Your task to perform on an android device: open app "Upside-Cash back on gas & food" Image 0: 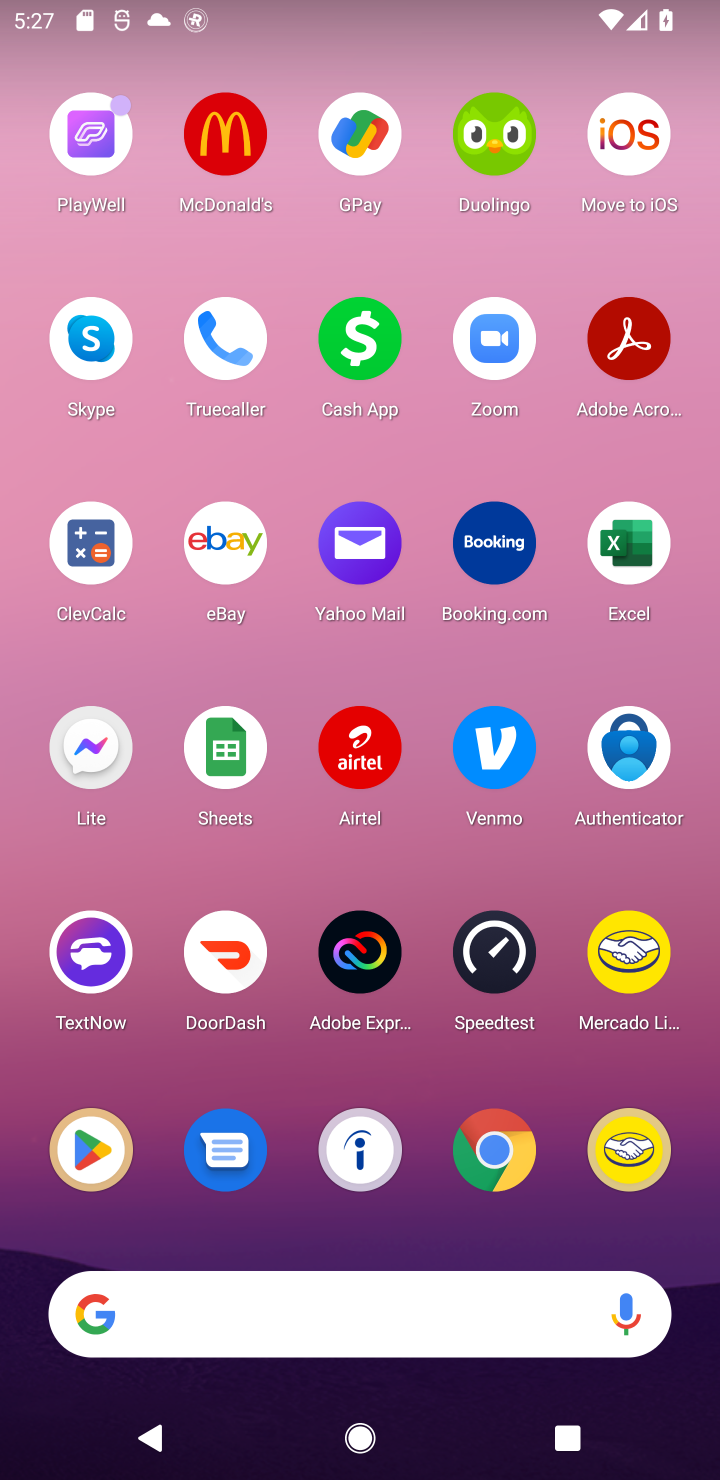
Step 0: click (83, 1115)
Your task to perform on an android device: open app "Upside-Cash back on gas & food" Image 1: 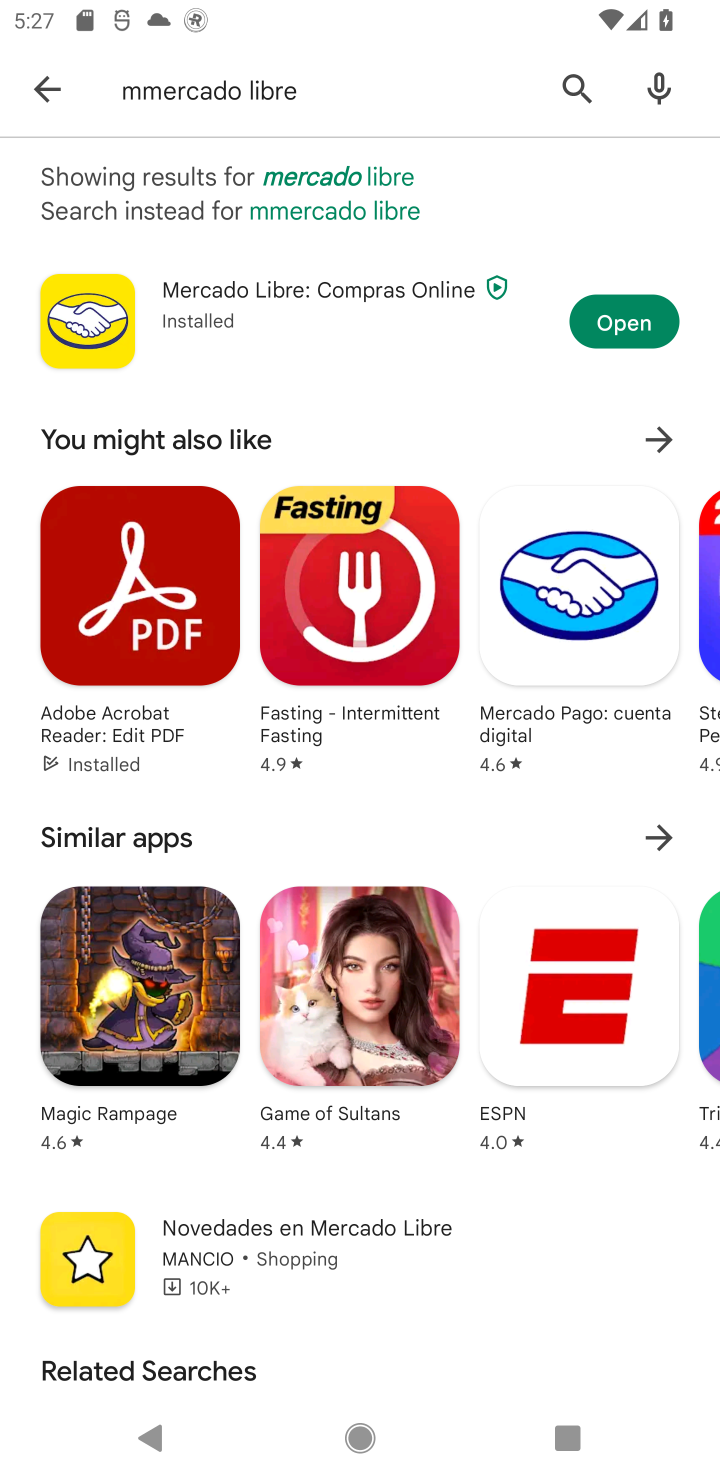
Step 1: click (573, 107)
Your task to perform on an android device: open app "Upside-Cash back on gas & food" Image 2: 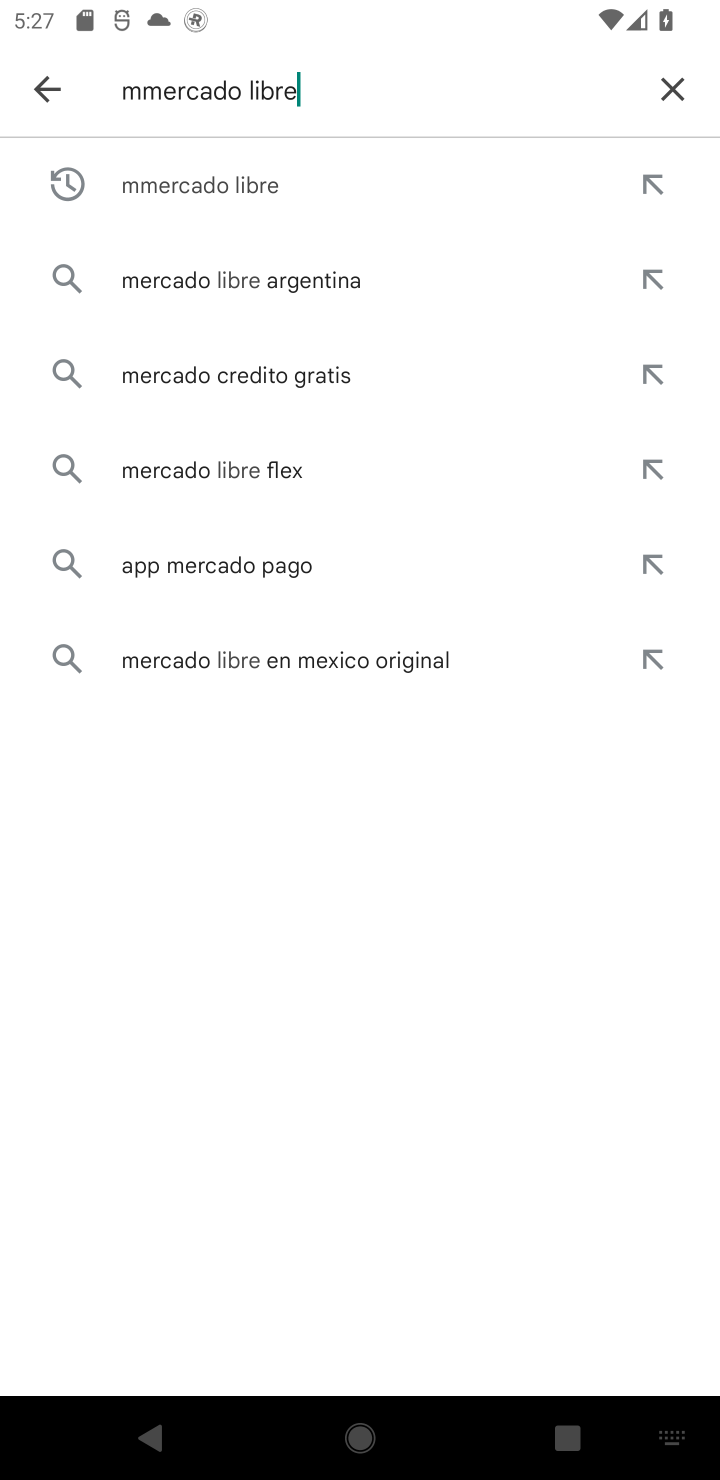
Step 2: click (667, 98)
Your task to perform on an android device: open app "Upside-Cash back on gas & food" Image 3: 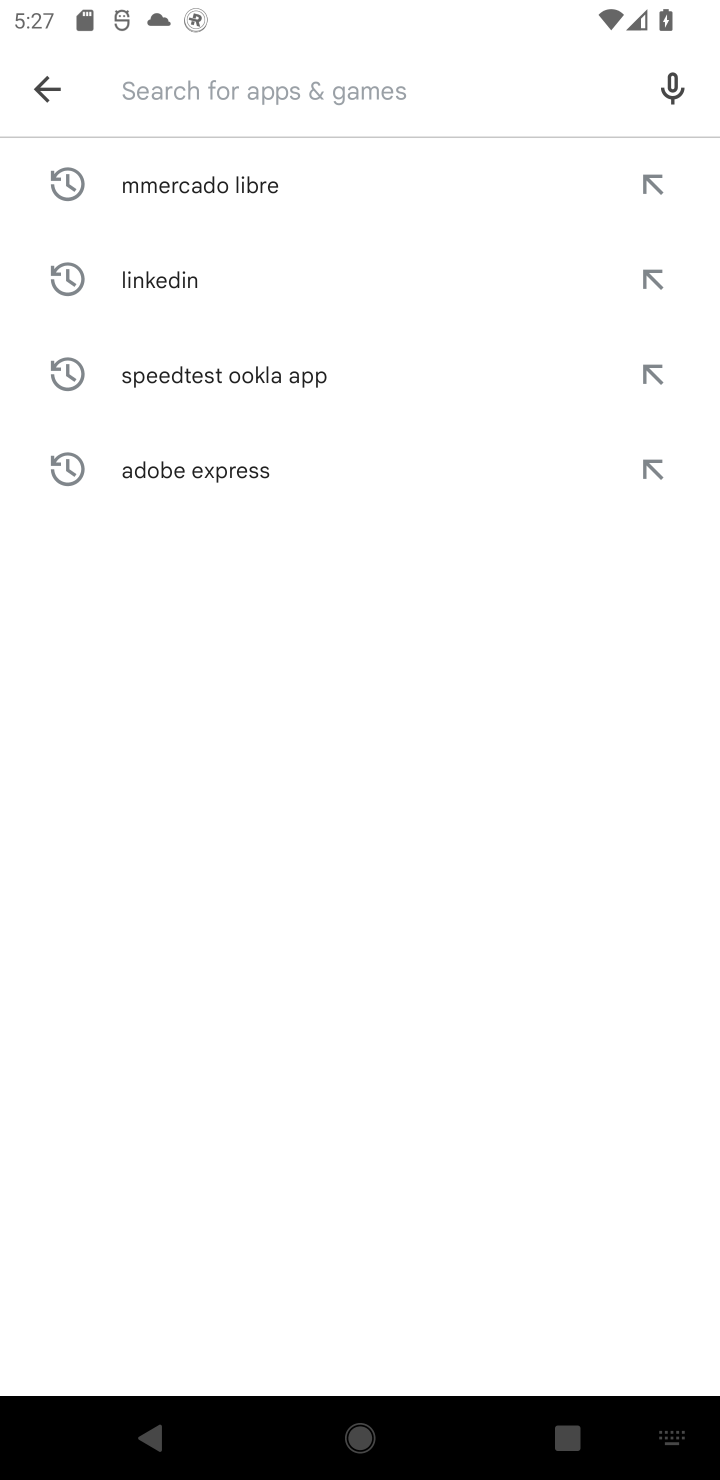
Step 3: type "upside"
Your task to perform on an android device: open app "Upside-Cash back on gas & food" Image 4: 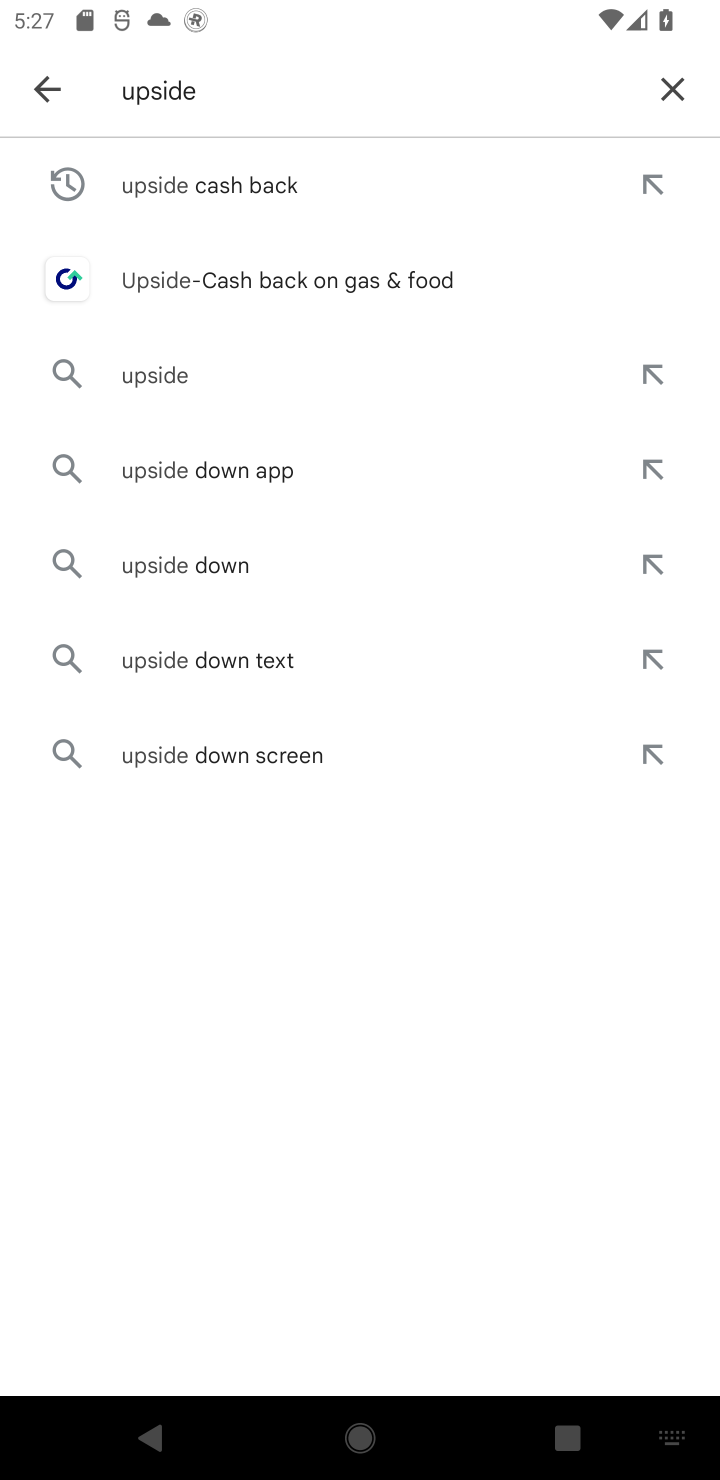
Step 4: click (470, 177)
Your task to perform on an android device: open app "Upside-Cash back on gas & food" Image 5: 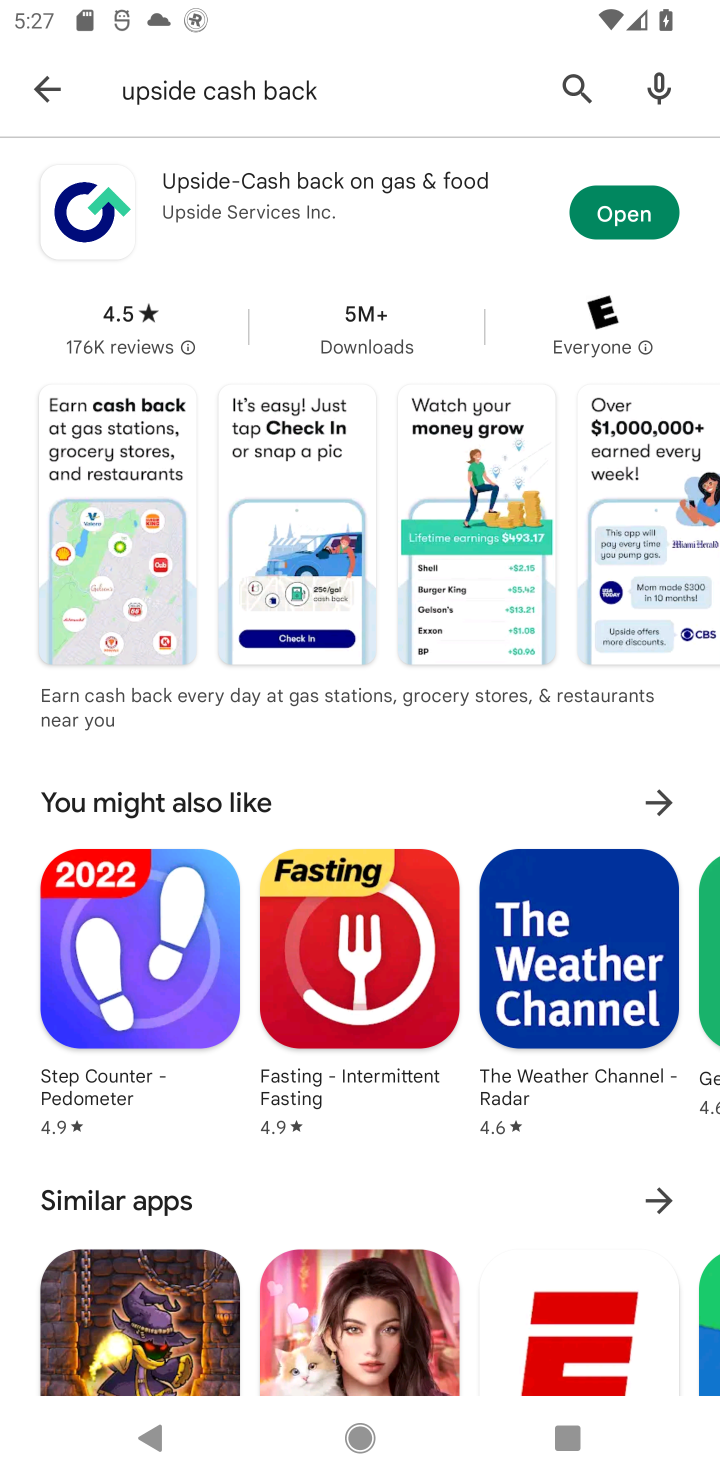
Step 5: click (605, 210)
Your task to perform on an android device: open app "Upside-Cash back on gas & food" Image 6: 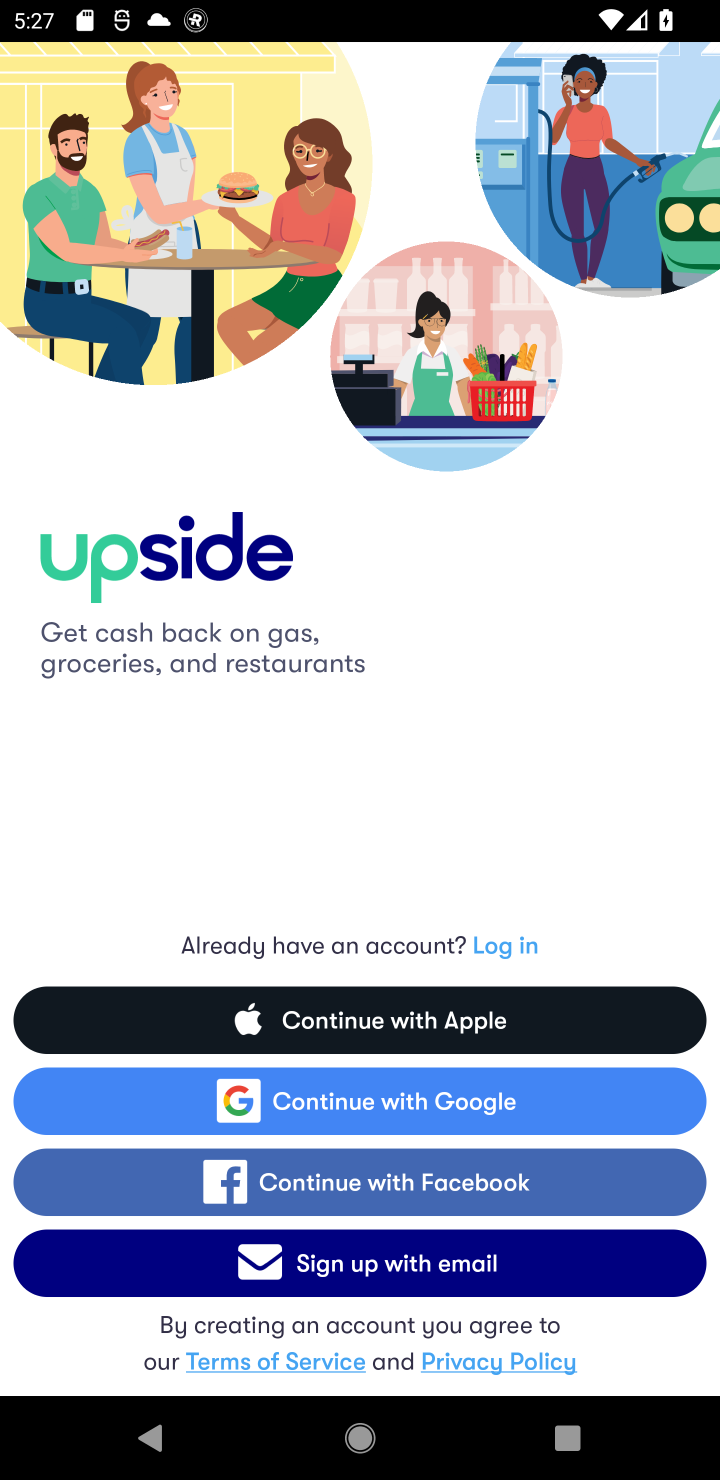
Step 6: task complete